Your task to perform on an android device: Open Wikipedia Image 0: 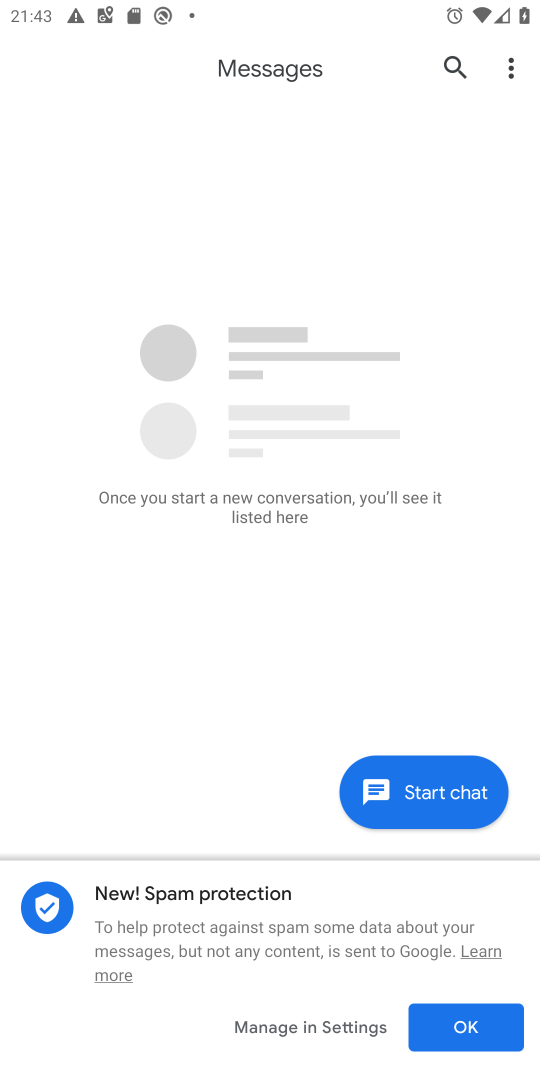
Step 0: press home button
Your task to perform on an android device: Open Wikipedia Image 1: 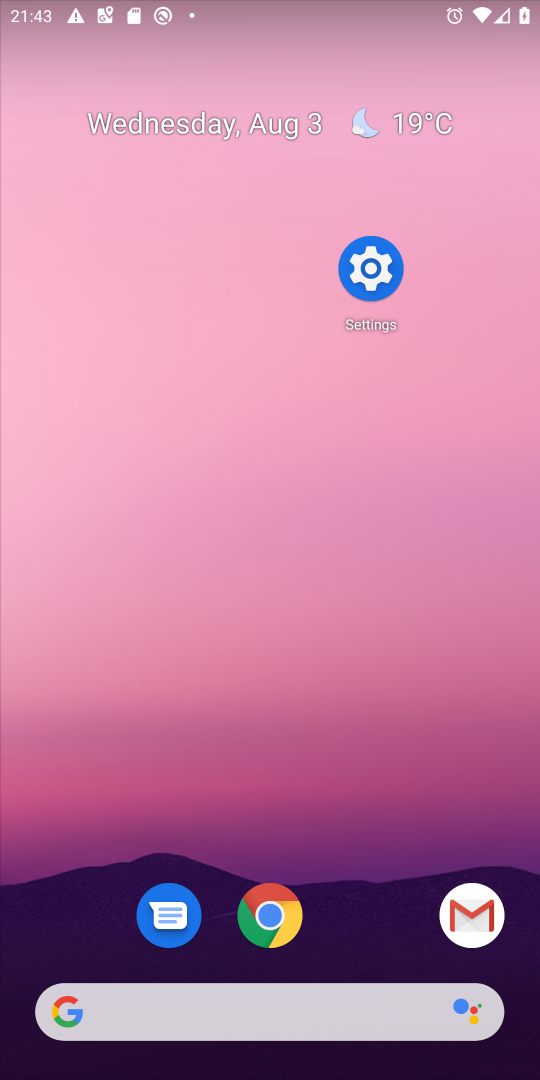
Step 1: drag from (354, 1011) to (342, 300)
Your task to perform on an android device: Open Wikipedia Image 2: 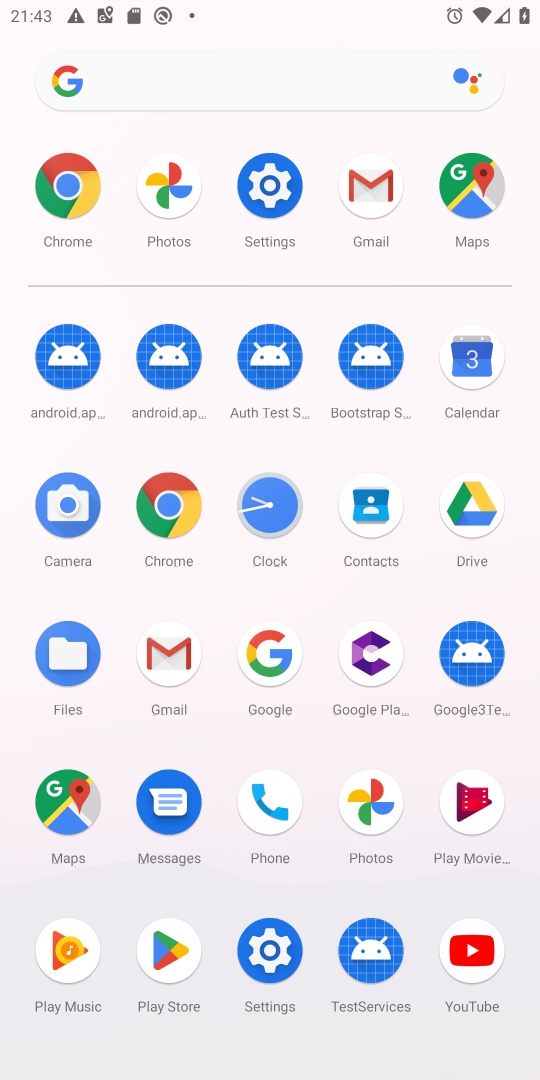
Step 2: click (76, 201)
Your task to perform on an android device: Open Wikipedia Image 3: 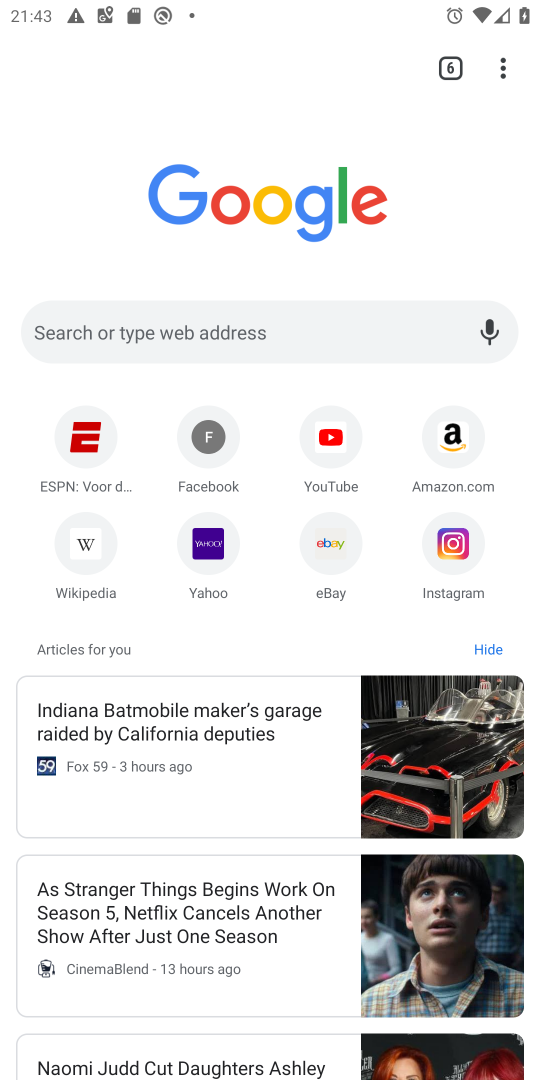
Step 3: click (86, 584)
Your task to perform on an android device: Open Wikipedia Image 4: 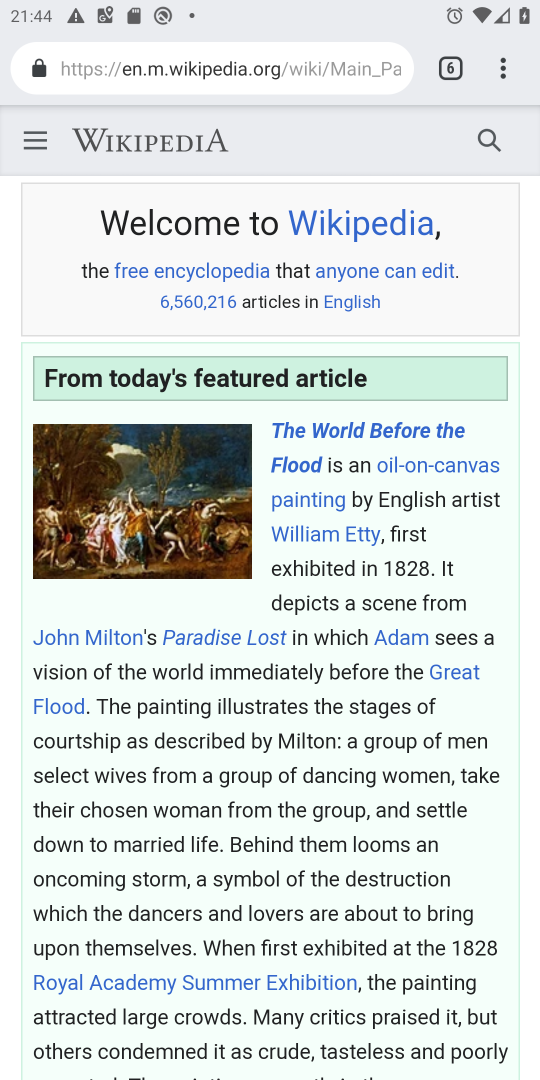
Step 4: task complete